Your task to perform on an android device: Search for flights from Mexico city to Boston Image 0: 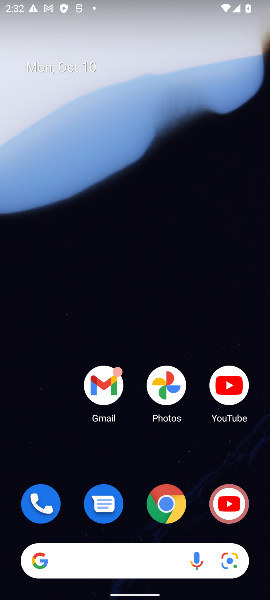
Step 0: drag from (166, 386) to (72, 37)
Your task to perform on an android device: Search for flights from Mexico city to Boston Image 1: 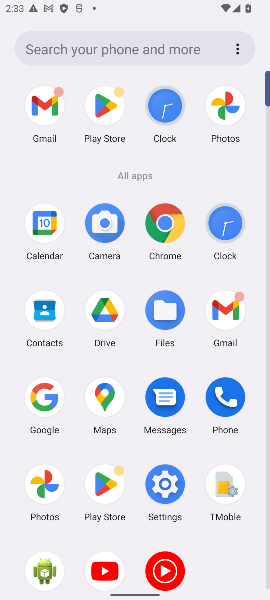
Step 1: click (172, 234)
Your task to perform on an android device: Search for flights from Mexico city to Boston Image 2: 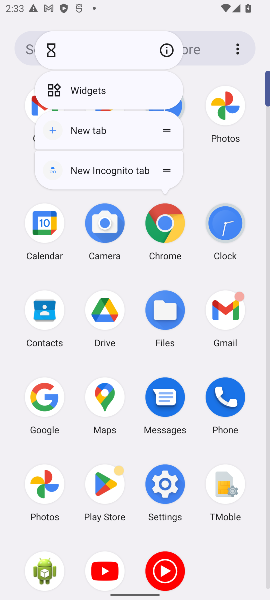
Step 2: click (167, 234)
Your task to perform on an android device: Search for flights from Mexico city to Boston Image 3: 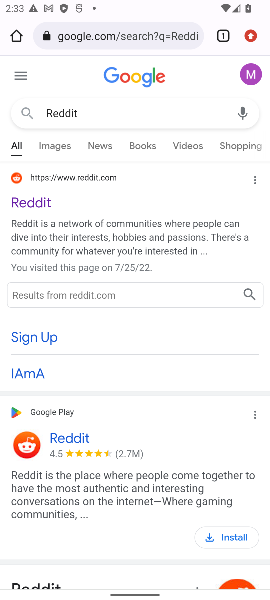
Step 3: click (106, 35)
Your task to perform on an android device: Search for flights from Mexico city to Boston Image 4: 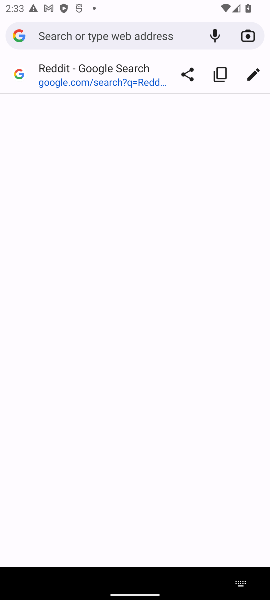
Step 4: type "Search for flights from Mexico city to Boston"
Your task to perform on an android device: Search for flights from Mexico city to Boston Image 5: 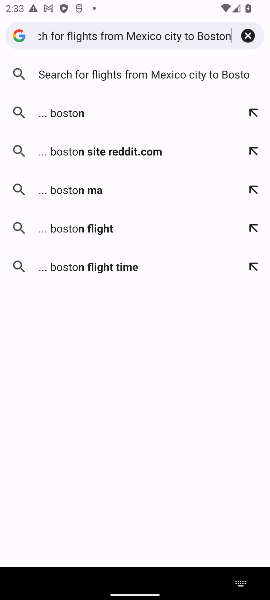
Step 5: press enter
Your task to perform on an android device: Search for flights from Mexico city to Boston Image 6: 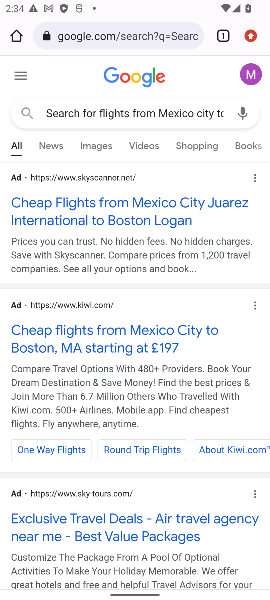
Step 6: click (109, 200)
Your task to perform on an android device: Search for flights from Mexico city to Boston Image 7: 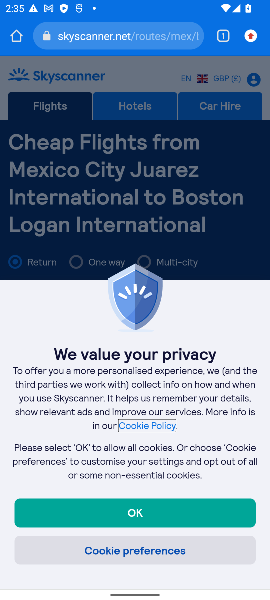
Step 7: task complete